Your task to perform on an android device: turn notification dots off Image 0: 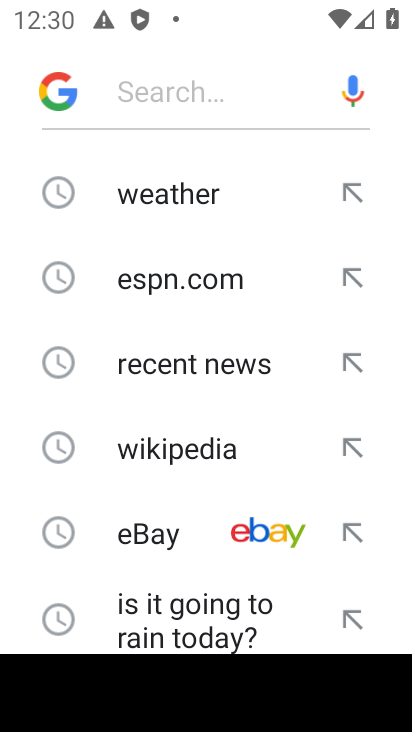
Step 0: press home button
Your task to perform on an android device: turn notification dots off Image 1: 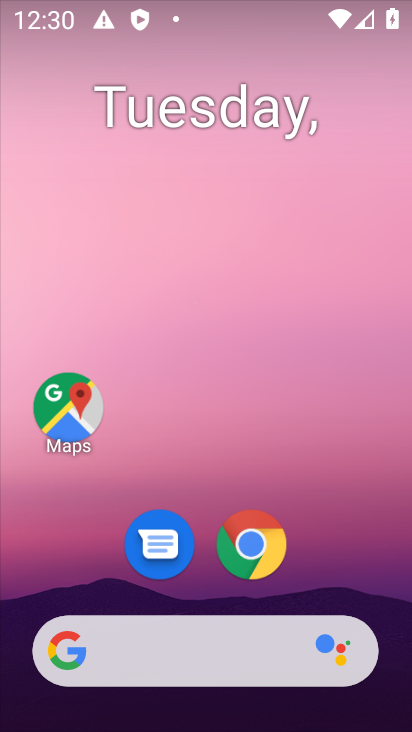
Step 1: drag from (352, 544) to (346, 0)
Your task to perform on an android device: turn notification dots off Image 2: 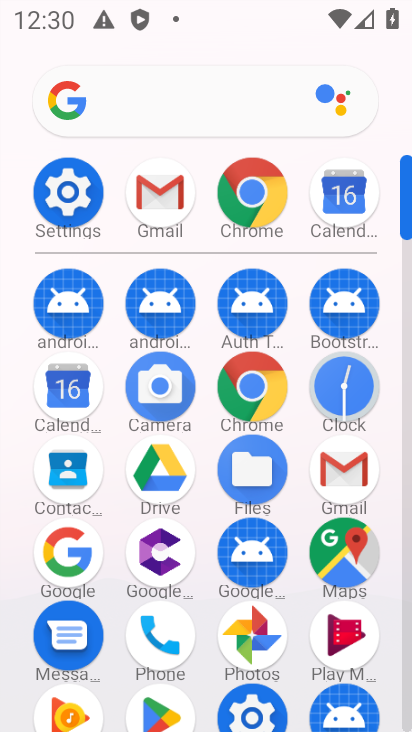
Step 2: click (55, 198)
Your task to perform on an android device: turn notification dots off Image 3: 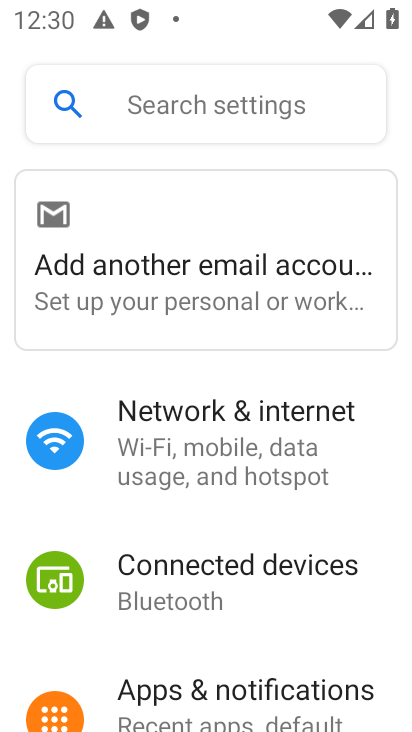
Step 3: click (257, 672)
Your task to perform on an android device: turn notification dots off Image 4: 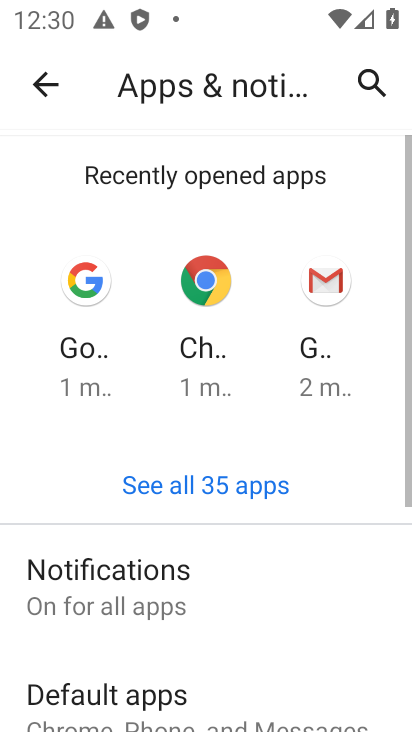
Step 4: click (106, 601)
Your task to perform on an android device: turn notification dots off Image 5: 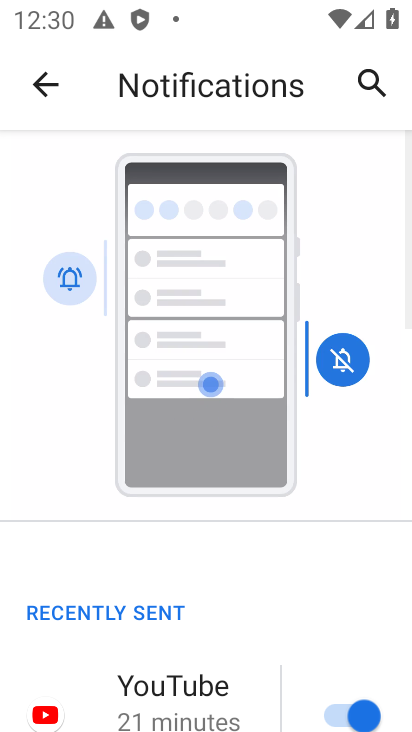
Step 5: drag from (264, 568) to (265, 38)
Your task to perform on an android device: turn notification dots off Image 6: 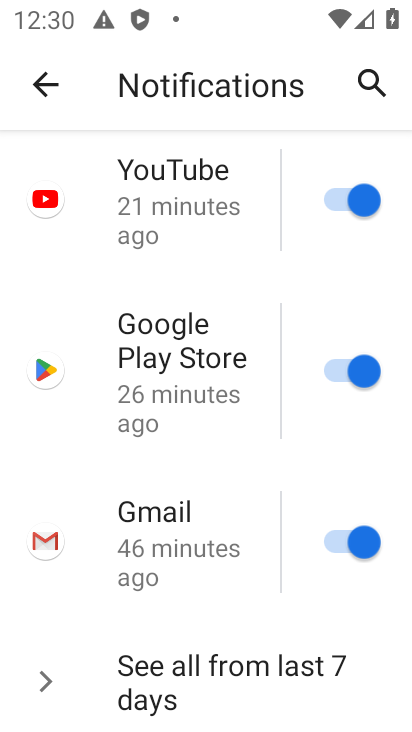
Step 6: drag from (215, 727) to (280, 191)
Your task to perform on an android device: turn notification dots off Image 7: 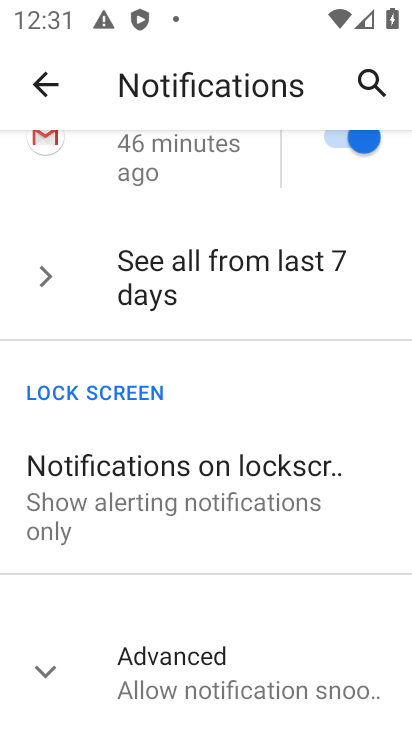
Step 7: click (194, 631)
Your task to perform on an android device: turn notification dots off Image 8: 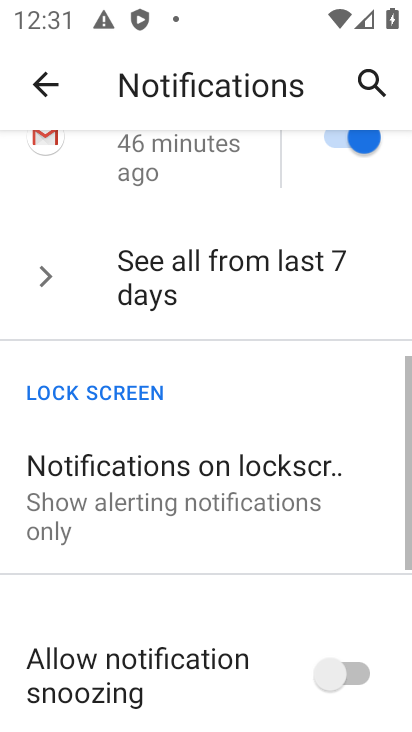
Step 8: task complete